Your task to perform on an android device: change alarm snooze length Image 0: 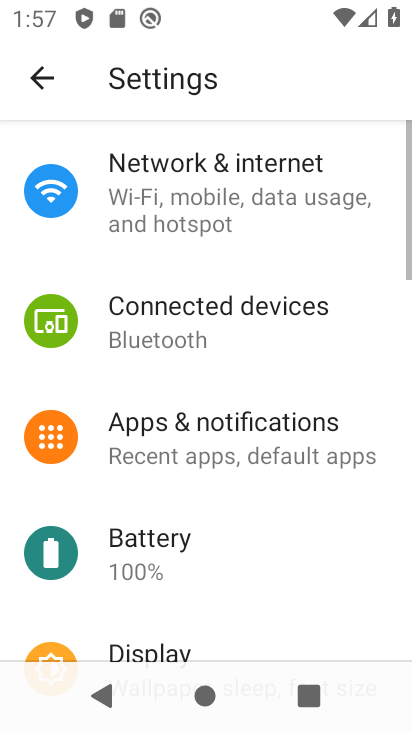
Step 0: press home button
Your task to perform on an android device: change alarm snooze length Image 1: 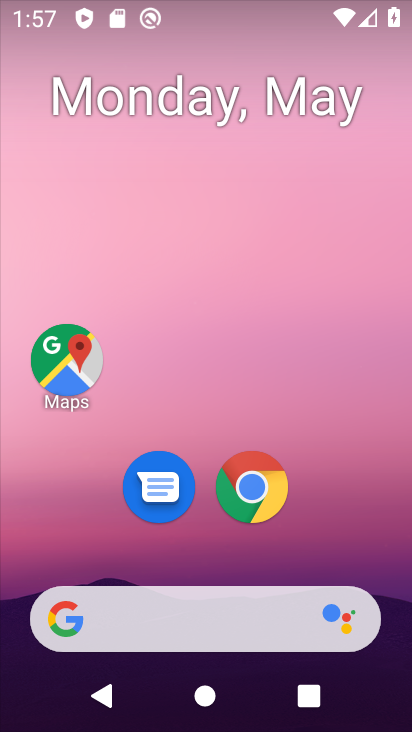
Step 1: drag from (359, 545) to (307, 144)
Your task to perform on an android device: change alarm snooze length Image 2: 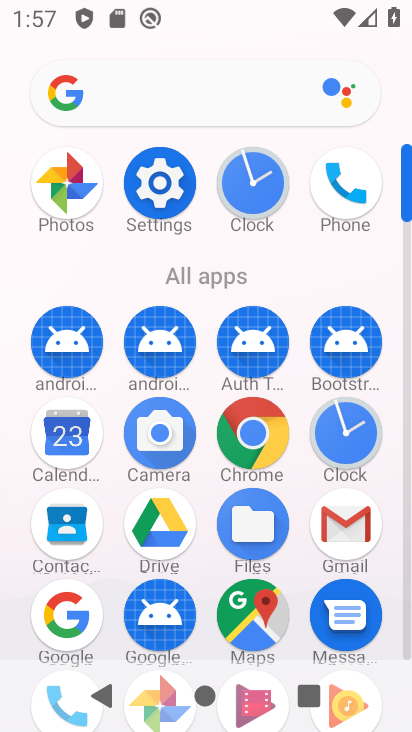
Step 2: click (258, 199)
Your task to perform on an android device: change alarm snooze length Image 3: 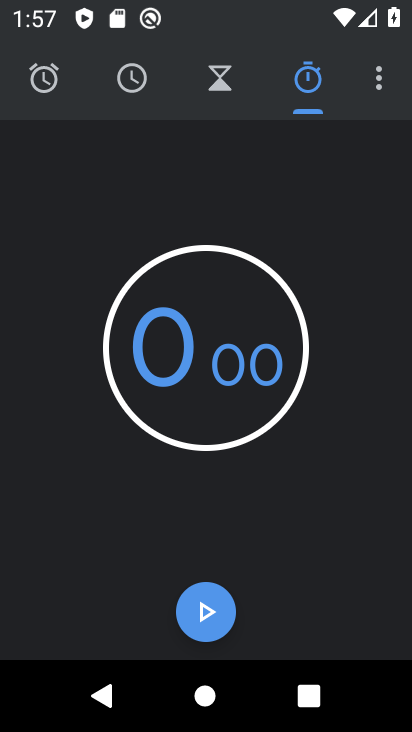
Step 3: click (389, 74)
Your task to perform on an android device: change alarm snooze length Image 4: 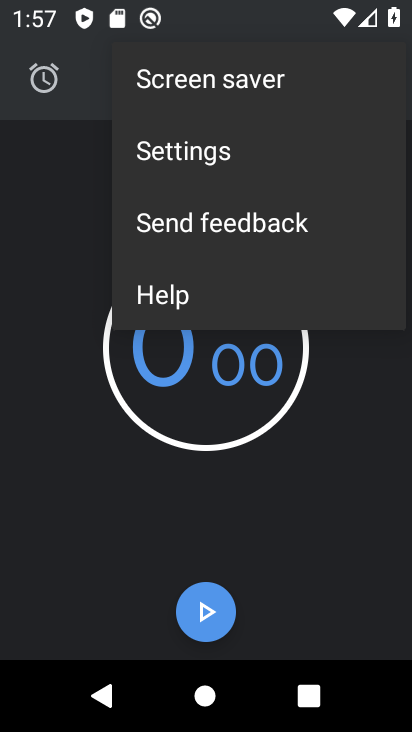
Step 4: click (314, 154)
Your task to perform on an android device: change alarm snooze length Image 5: 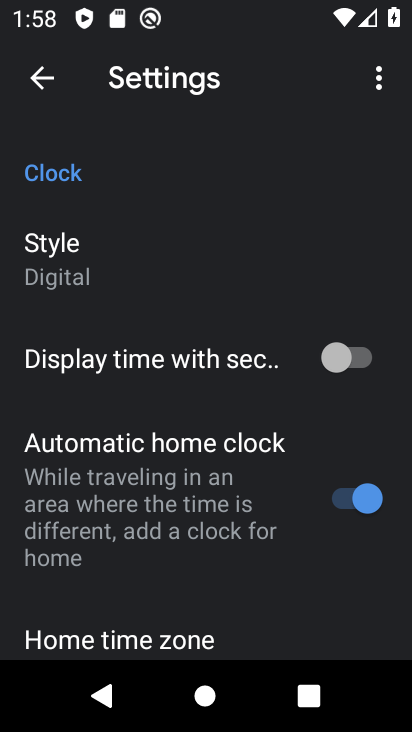
Step 5: drag from (262, 602) to (231, 244)
Your task to perform on an android device: change alarm snooze length Image 6: 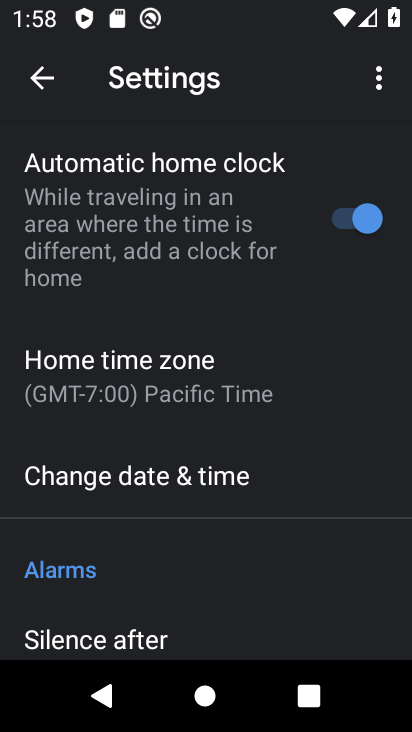
Step 6: drag from (256, 602) to (218, 258)
Your task to perform on an android device: change alarm snooze length Image 7: 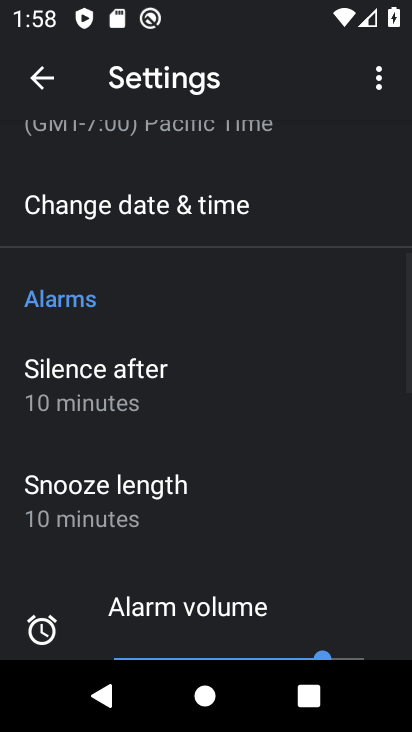
Step 7: click (216, 553)
Your task to perform on an android device: change alarm snooze length Image 8: 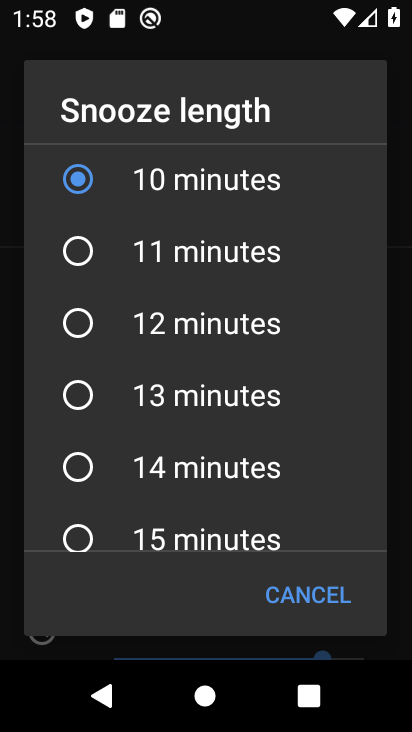
Step 8: click (219, 480)
Your task to perform on an android device: change alarm snooze length Image 9: 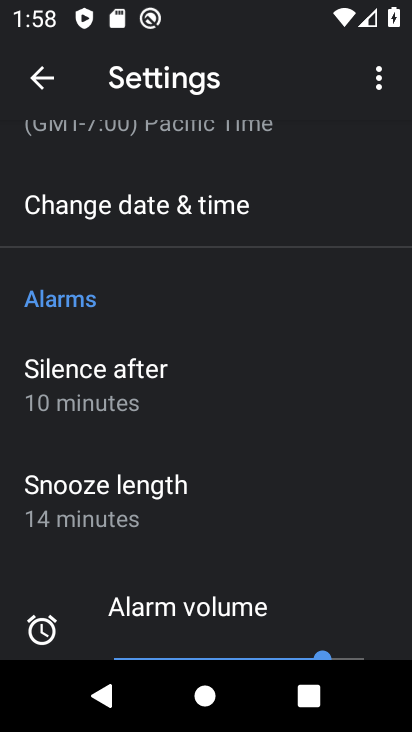
Step 9: task complete